Your task to perform on an android device: Do I have any events this weekend? Image 0: 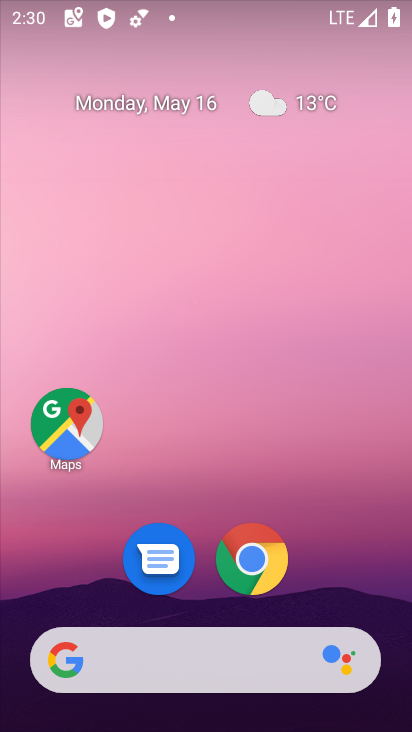
Step 0: drag from (202, 593) to (283, 47)
Your task to perform on an android device: Do I have any events this weekend? Image 1: 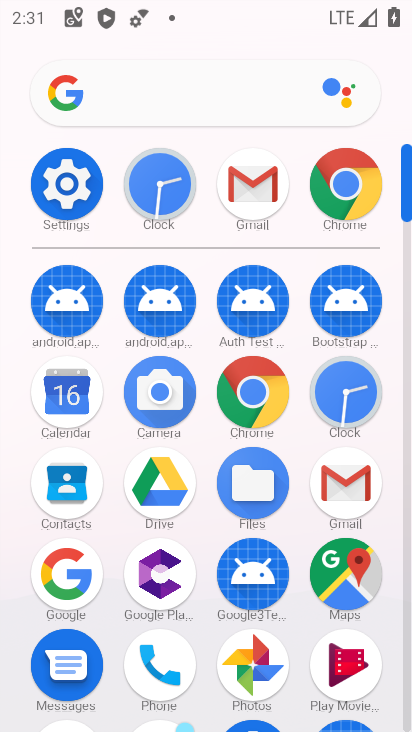
Step 1: click (86, 398)
Your task to perform on an android device: Do I have any events this weekend? Image 2: 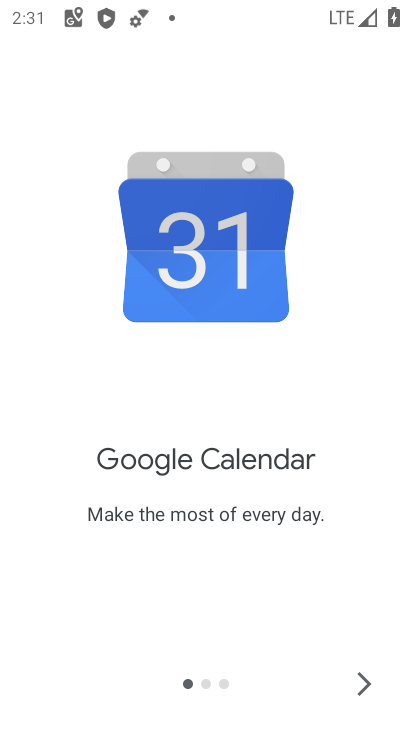
Step 2: click (363, 675)
Your task to perform on an android device: Do I have any events this weekend? Image 3: 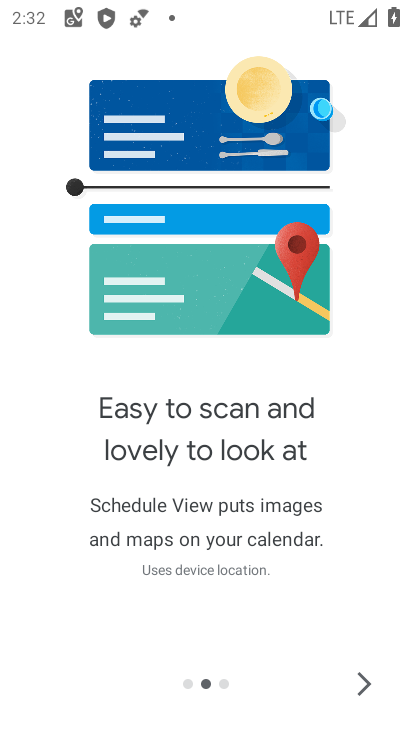
Step 3: click (354, 693)
Your task to perform on an android device: Do I have any events this weekend? Image 4: 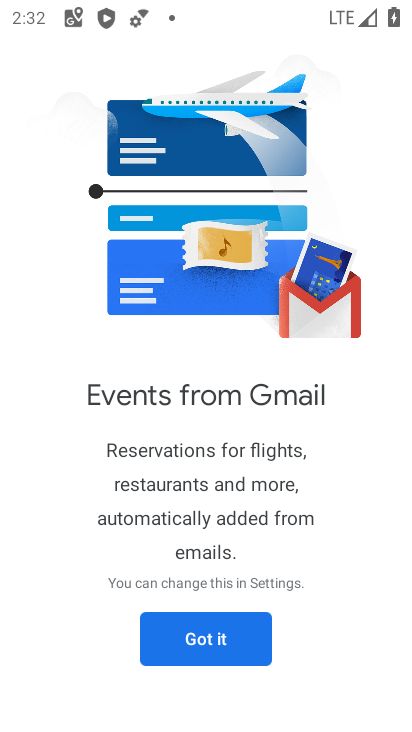
Step 4: click (223, 638)
Your task to perform on an android device: Do I have any events this weekend? Image 5: 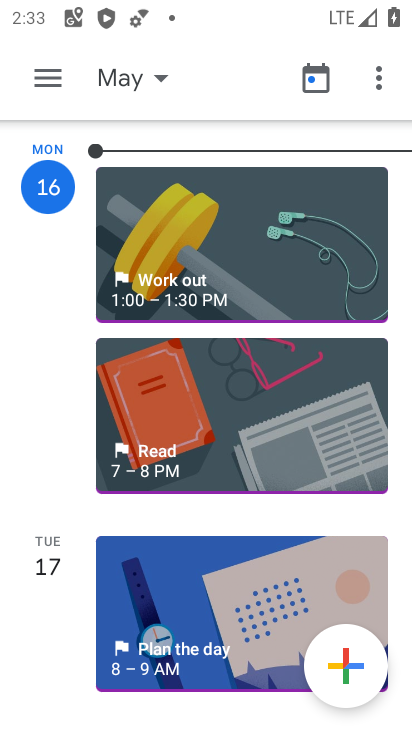
Step 5: click (46, 78)
Your task to perform on an android device: Do I have any events this weekend? Image 6: 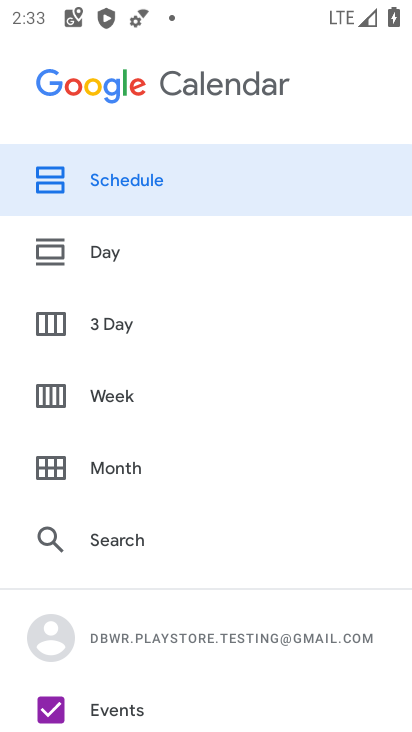
Step 6: press back button
Your task to perform on an android device: Do I have any events this weekend? Image 7: 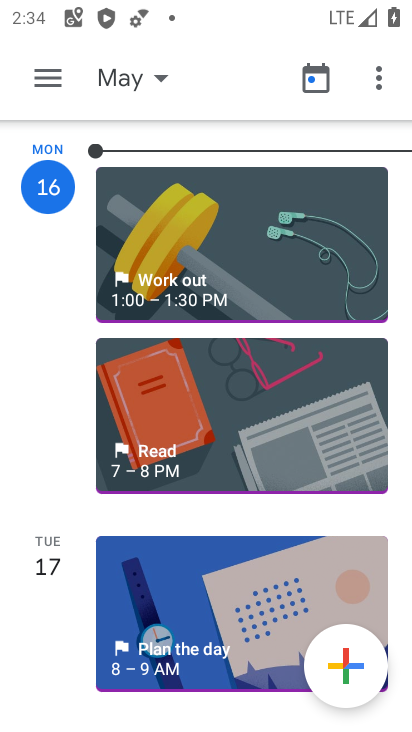
Step 7: drag from (160, 636) to (270, 199)
Your task to perform on an android device: Do I have any events this weekend? Image 8: 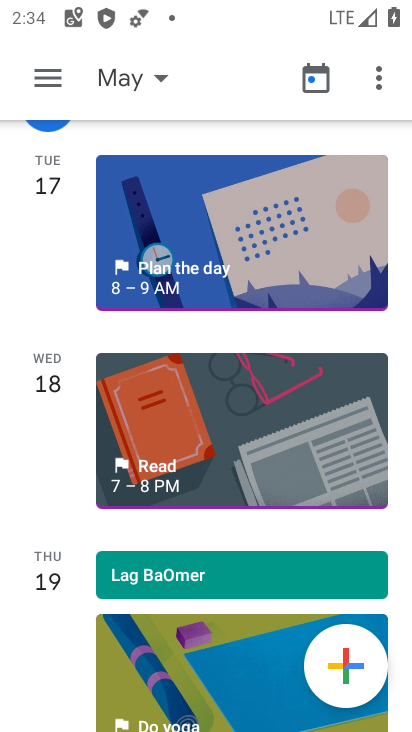
Step 8: drag from (224, 657) to (280, 185)
Your task to perform on an android device: Do I have any events this weekend? Image 9: 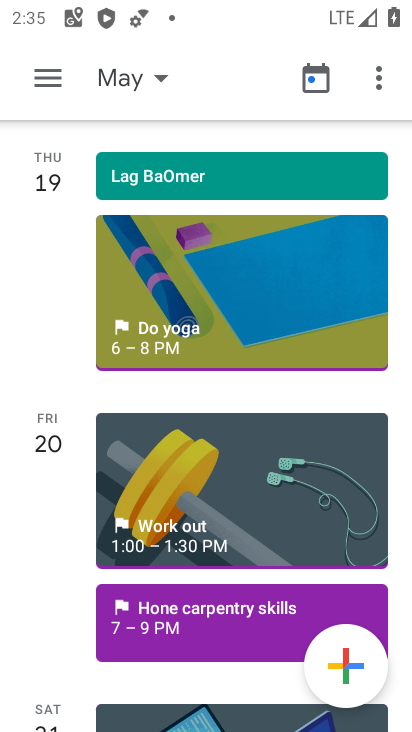
Step 9: drag from (217, 393) to (268, 97)
Your task to perform on an android device: Do I have any events this weekend? Image 10: 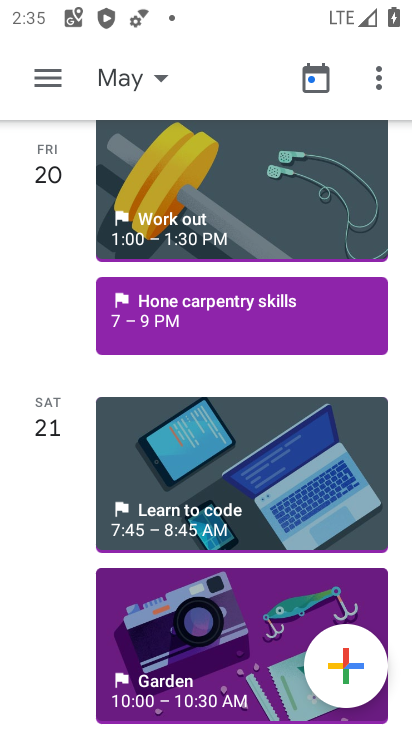
Step 10: drag from (238, 605) to (298, 233)
Your task to perform on an android device: Do I have any events this weekend? Image 11: 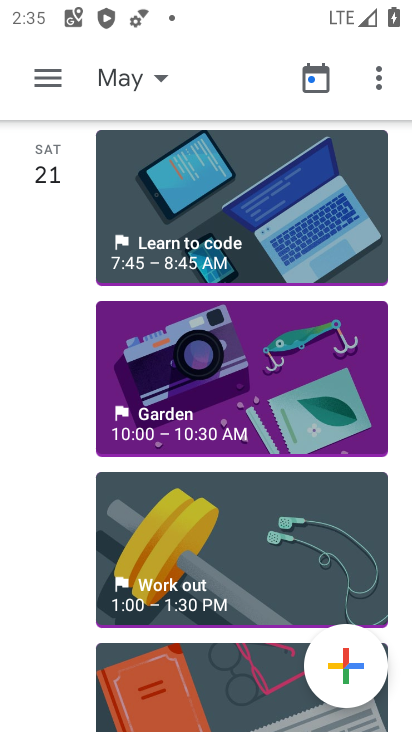
Step 11: drag from (197, 606) to (259, 157)
Your task to perform on an android device: Do I have any events this weekend? Image 12: 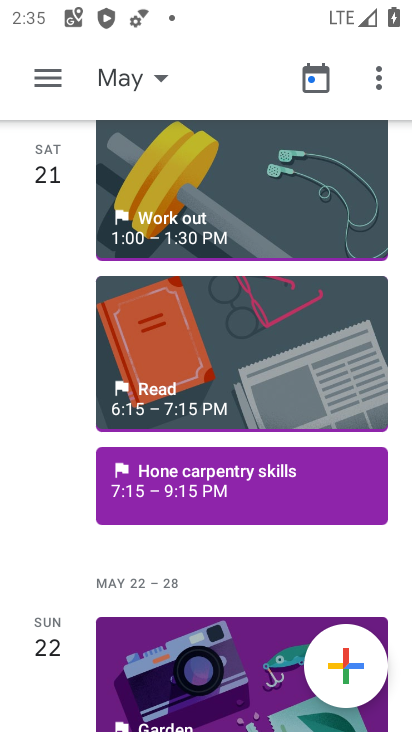
Step 12: drag from (248, 209) to (194, 706)
Your task to perform on an android device: Do I have any events this weekend? Image 13: 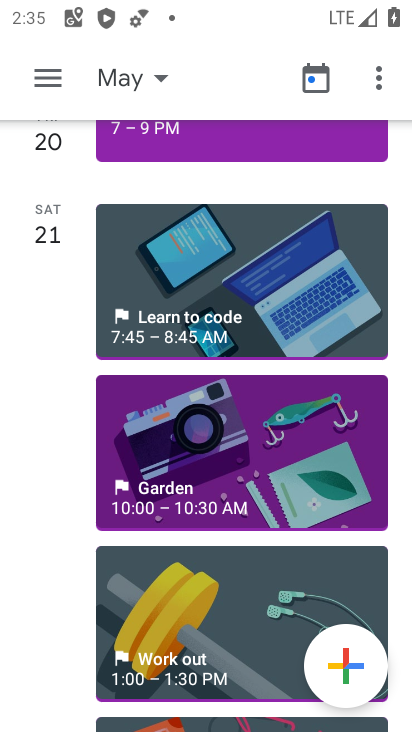
Step 13: click (203, 300)
Your task to perform on an android device: Do I have any events this weekend? Image 14: 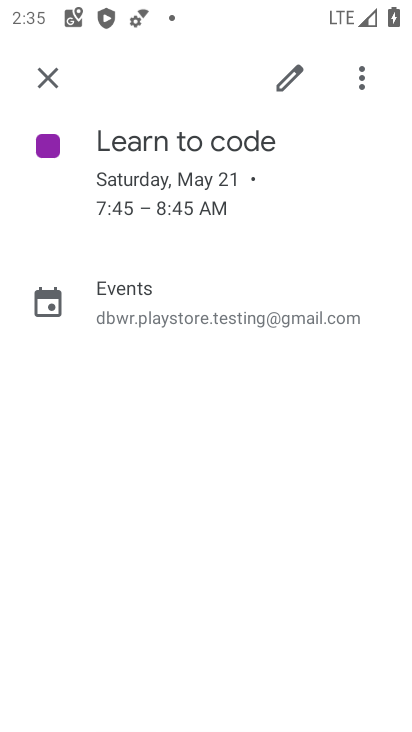
Step 14: task complete